Your task to perform on an android device: Go to location settings Image 0: 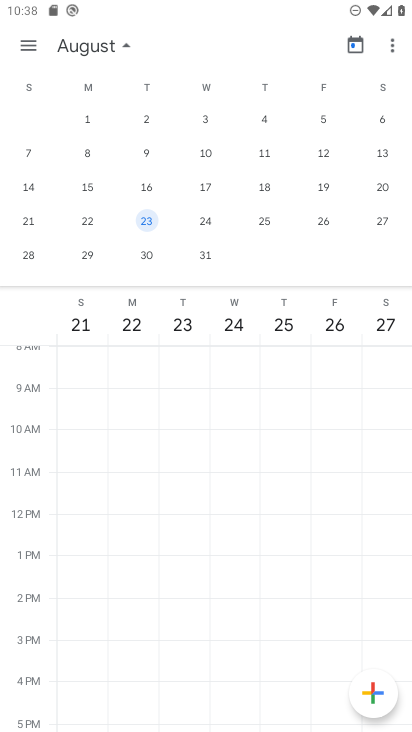
Step 0: press home button
Your task to perform on an android device: Go to location settings Image 1: 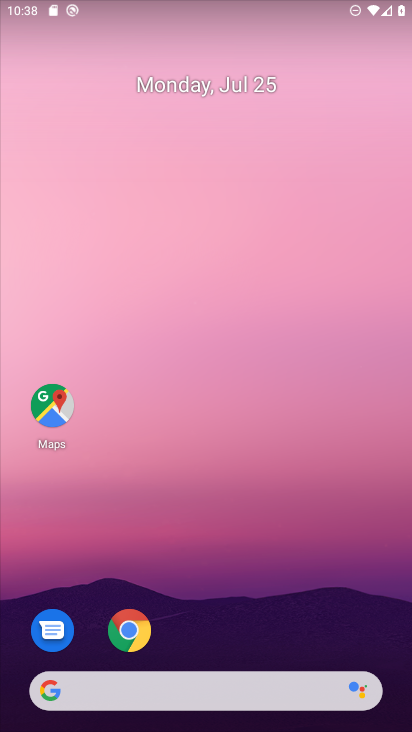
Step 1: drag from (322, 557) to (252, 71)
Your task to perform on an android device: Go to location settings Image 2: 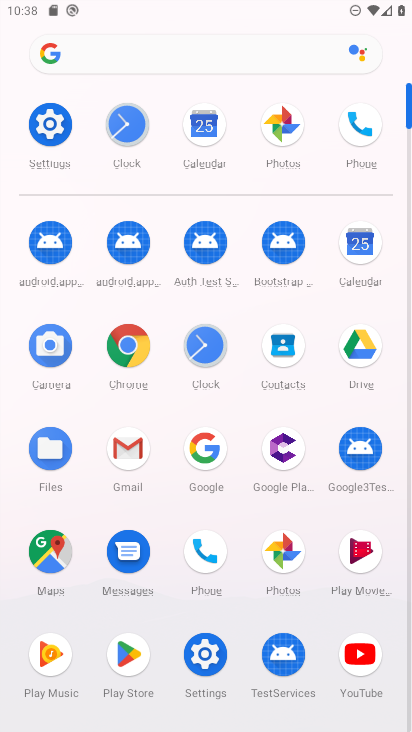
Step 2: click (58, 132)
Your task to perform on an android device: Go to location settings Image 3: 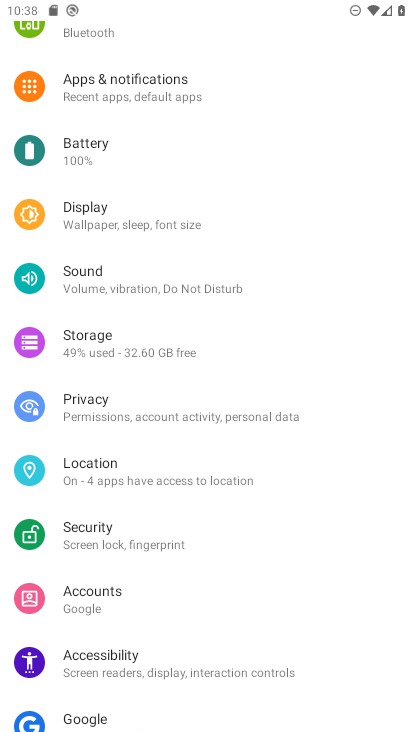
Step 3: click (115, 476)
Your task to perform on an android device: Go to location settings Image 4: 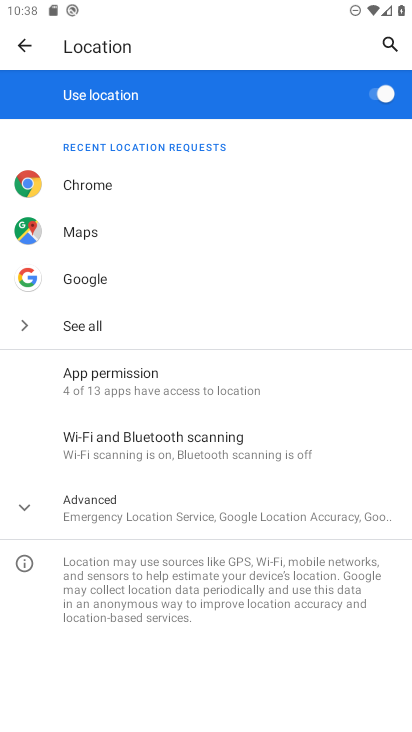
Step 4: task complete